Your task to perform on an android device: What is the capital of Canada? Image 0: 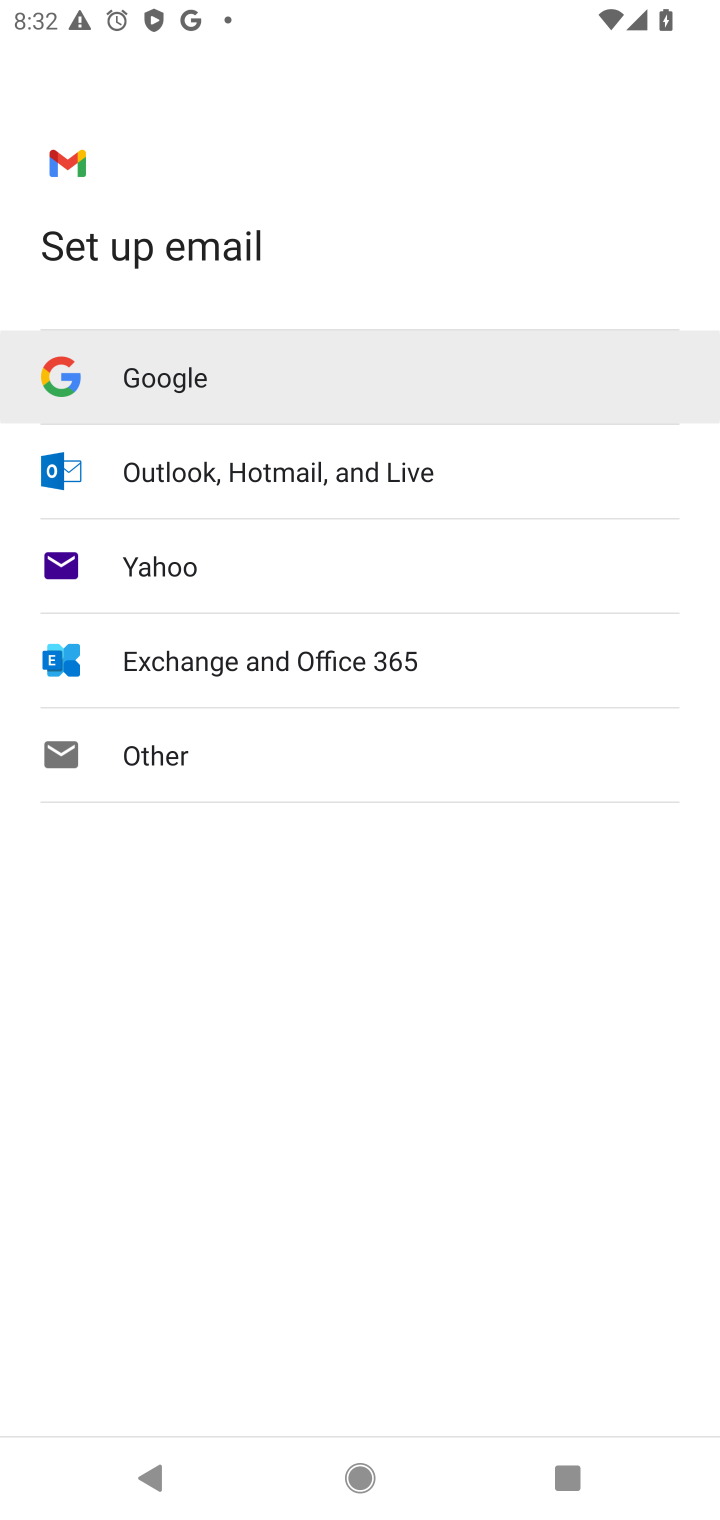
Step 0: press home button
Your task to perform on an android device: What is the capital of Canada? Image 1: 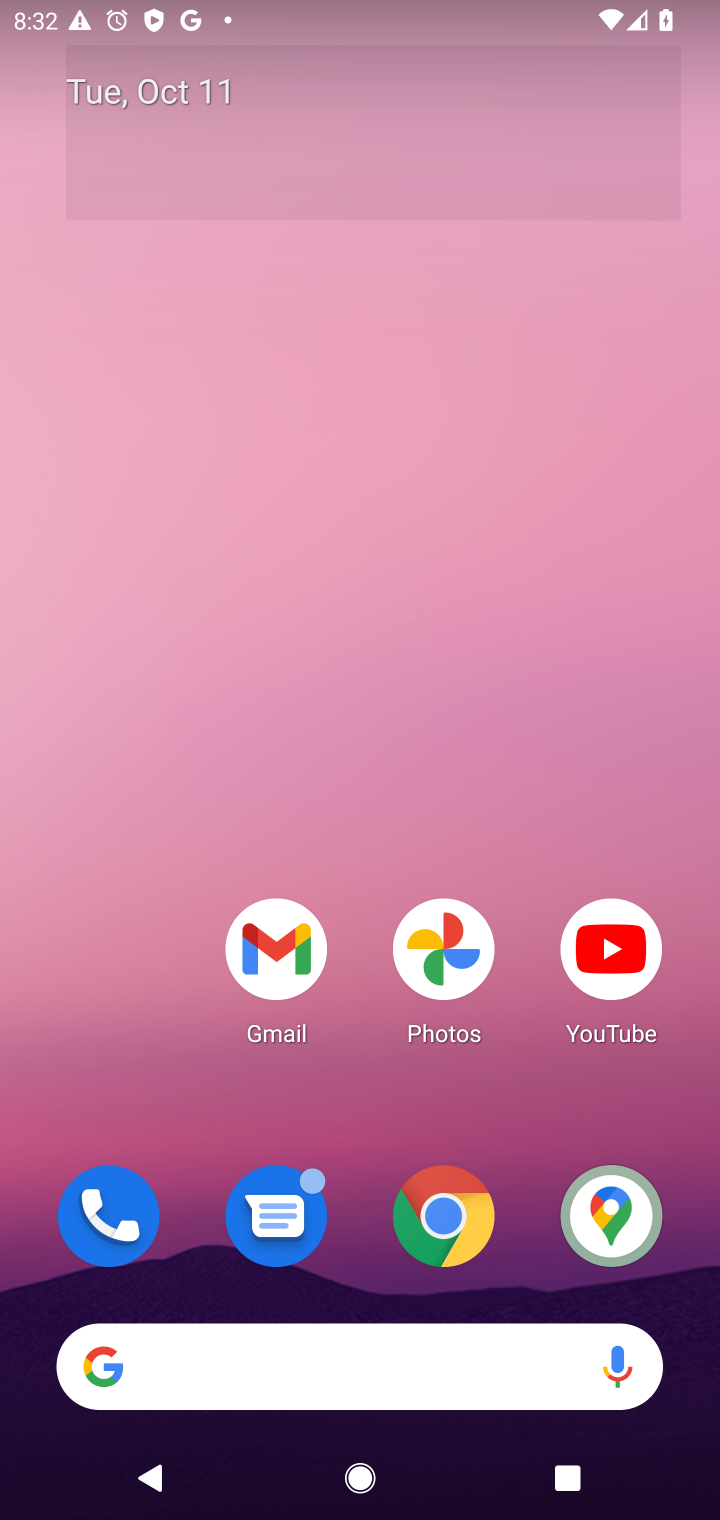
Step 1: click (432, 1226)
Your task to perform on an android device: What is the capital of Canada? Image 2: 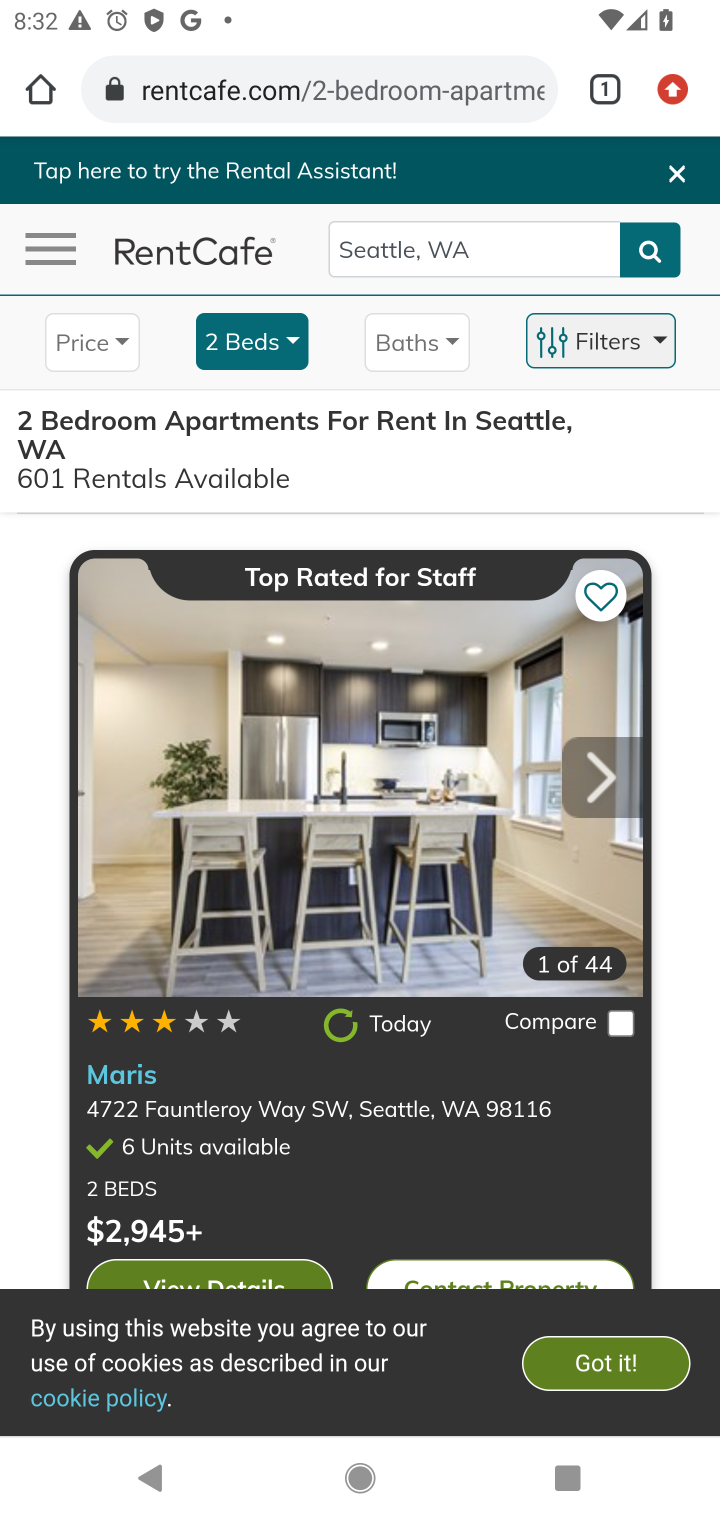
Step 2: click (379, 92)
Your task to perform on an android device: What is the capital of Canada? Image 3: 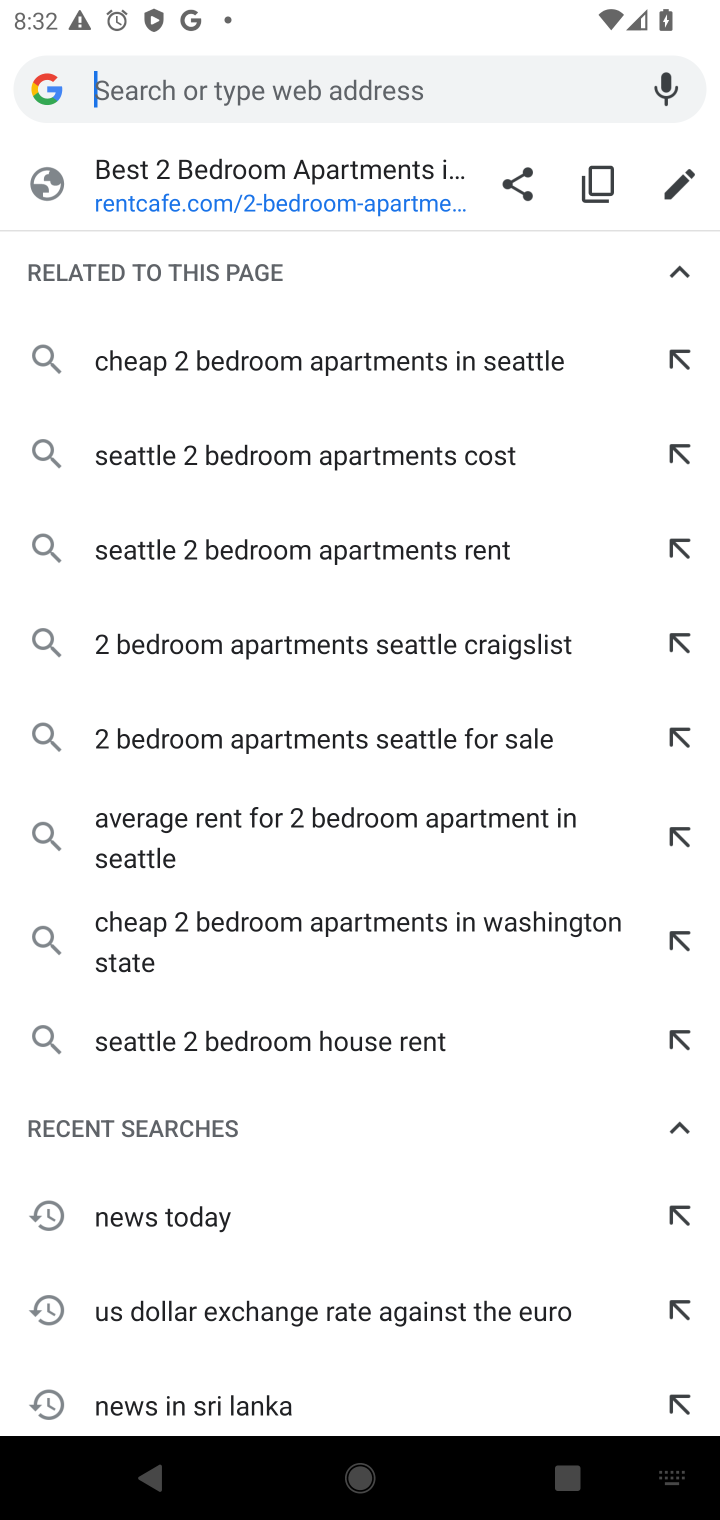
Step 3: type " capital of canda"
Your task to perform on an android device: What is the capital of Canada? Image 4: 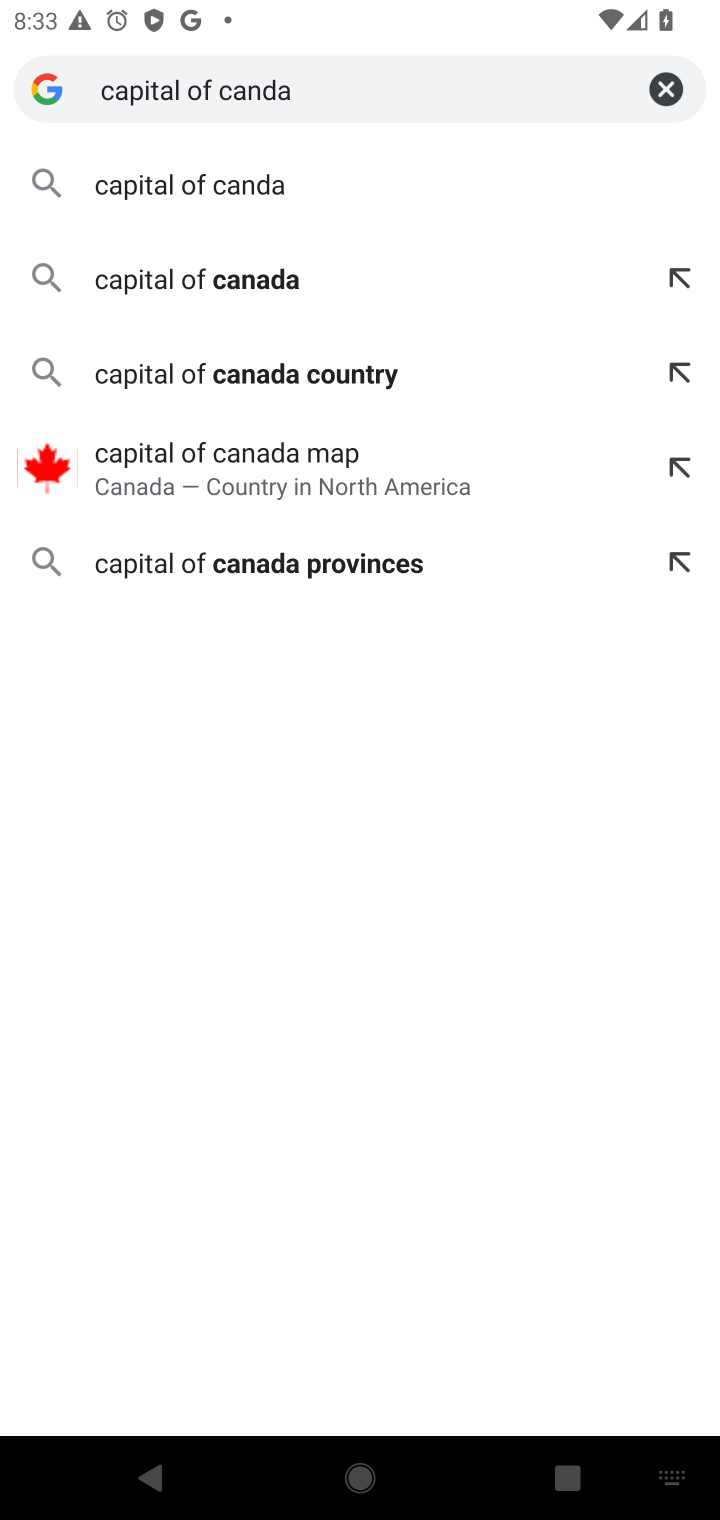
Step 4: click (316, 262)
Your task to perform on an android device: What is the capital of Canada? Image 5: 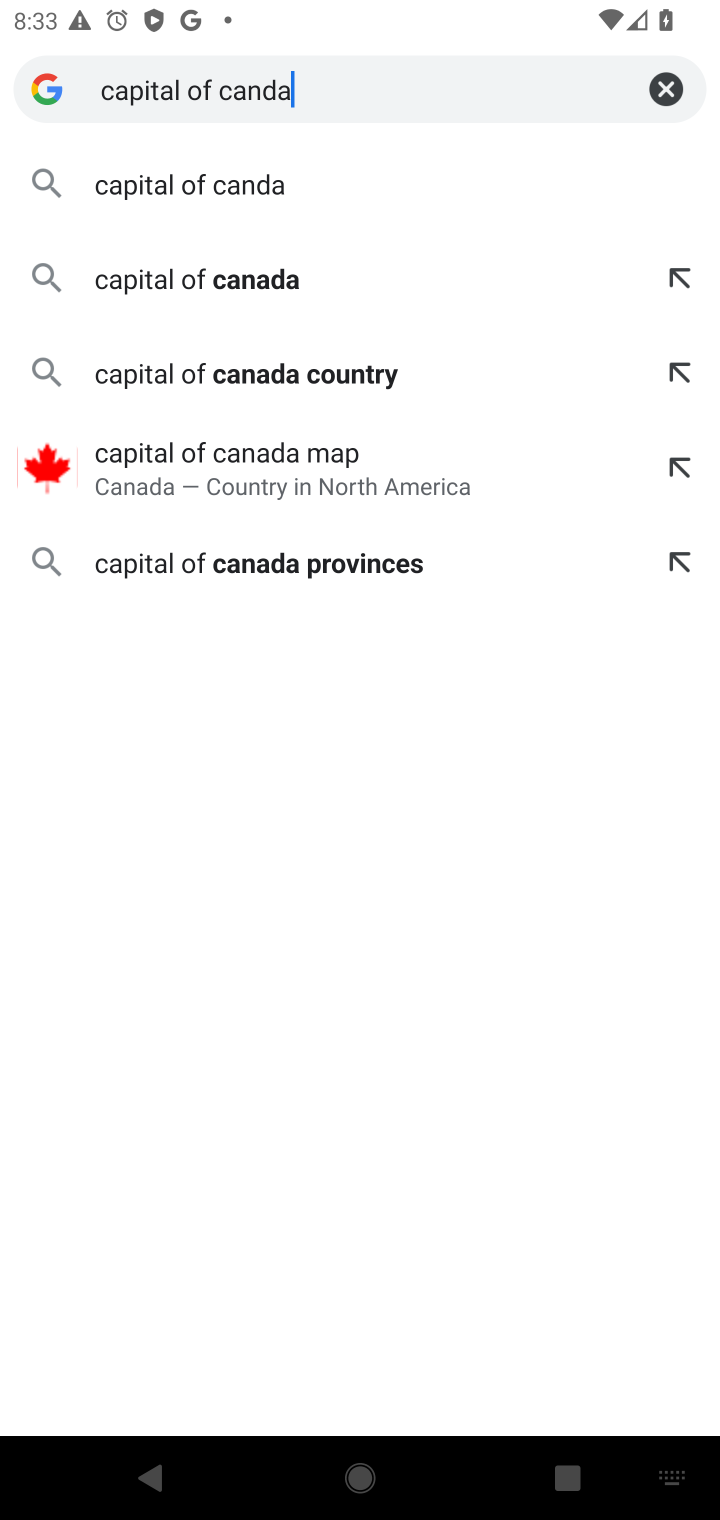
Step 5: click (226, 285)
Your task to perform on an android device: What is the capital of Canada? Image 6: 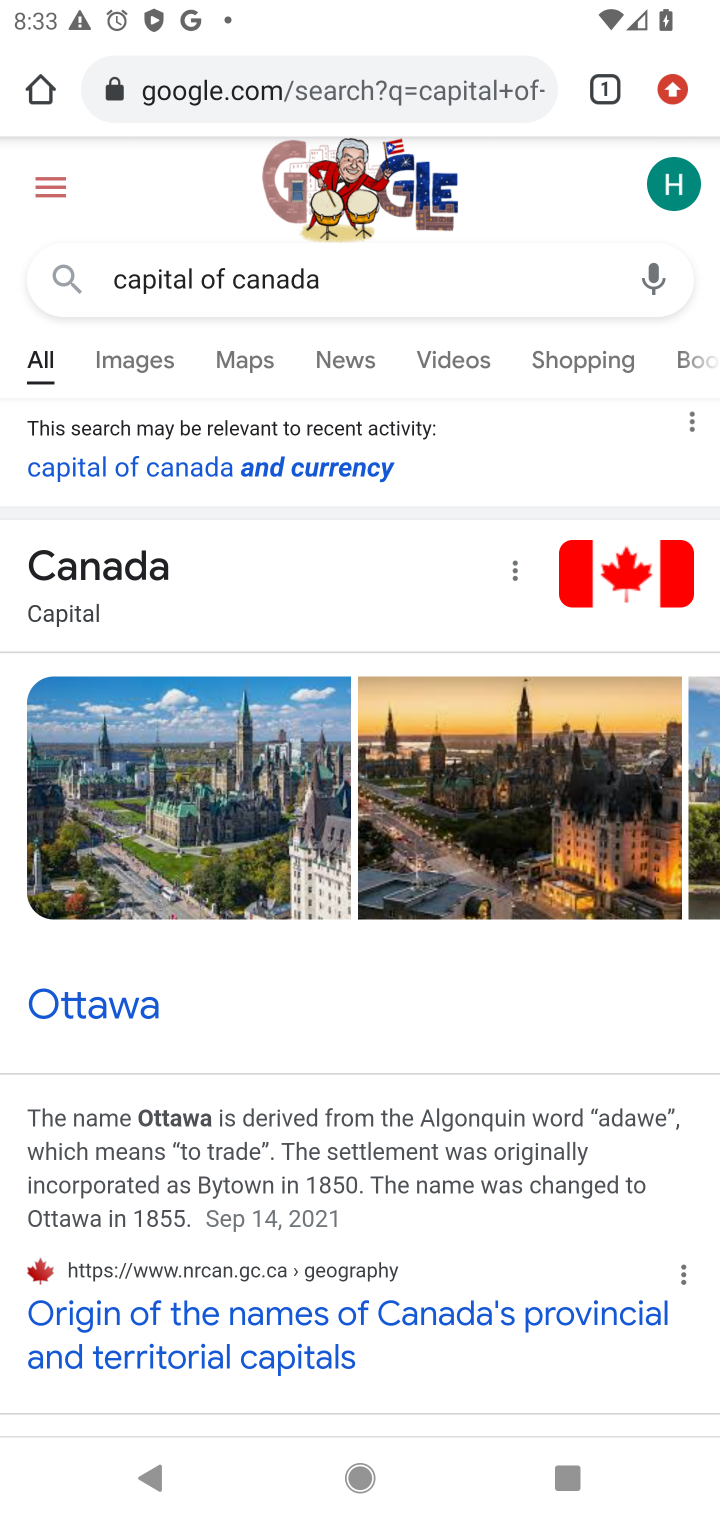
Step 6: task complete